Your task to perform on an android device: Toggle the flashlight Image 0: 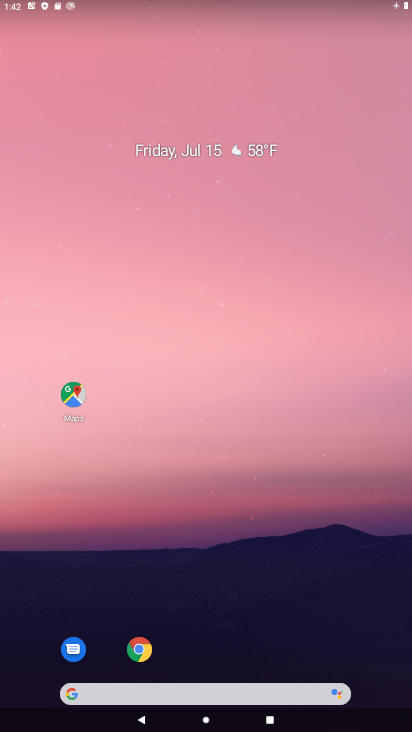
Step 0: drag from (235, 32) to (244, 726)
Your task to perform on an android device: Toggle the flashlight Image 1: 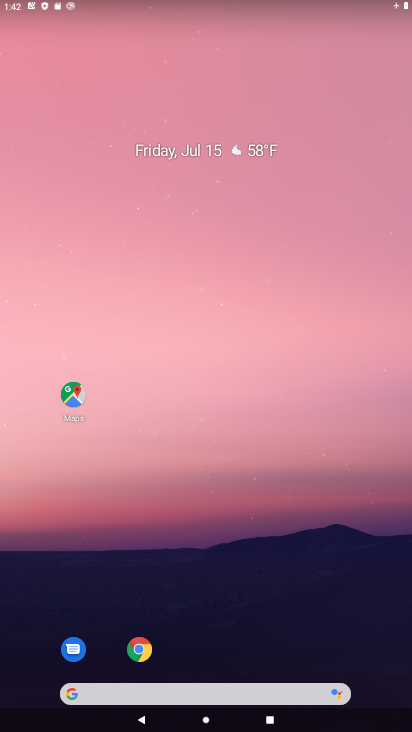
Step 1: task complete